Your task to perform on an android device: snooze an email in the gmail app Image 0: 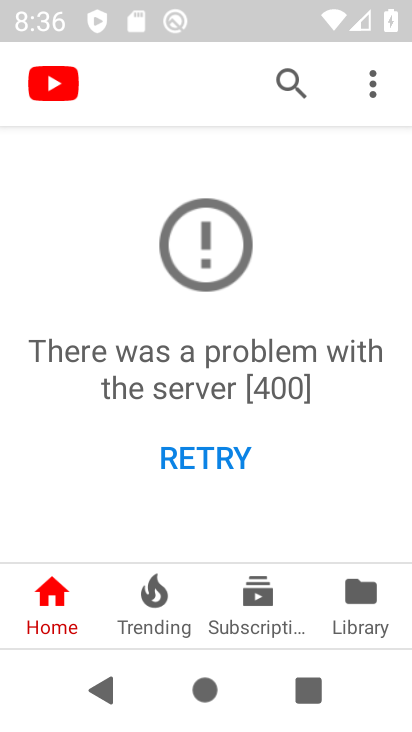
Step 0: press home button
Your task to perform on an android device: snooze an email in the gmail app Image 1: 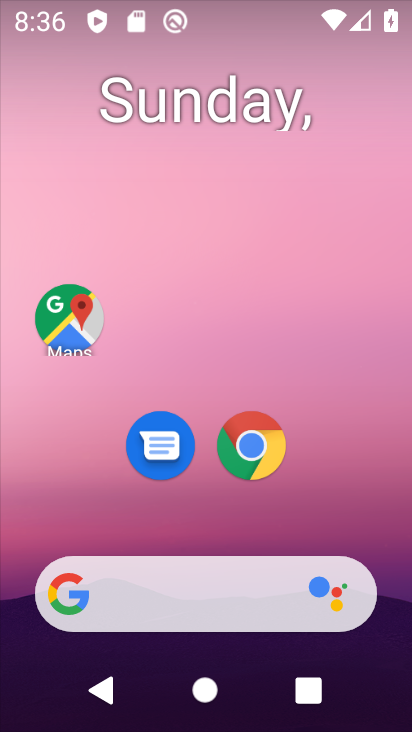
Step 1: drag from (352, 359) to (317, 108)
Your task to perform on an android device: snooze an email in the gmail app Image 2: 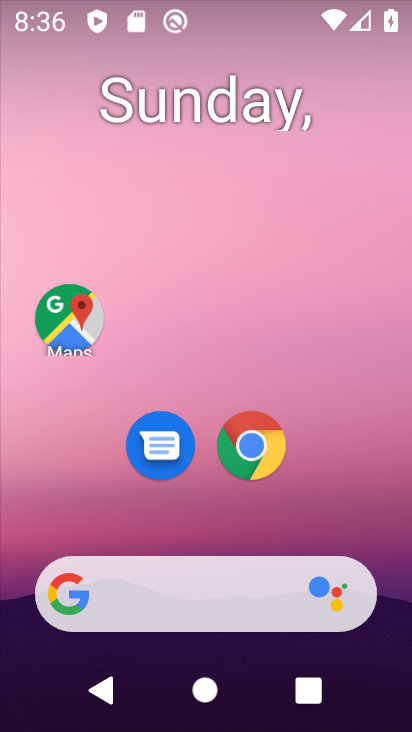
Step 2: drag from (347, 537) to (303, 171)
Your task to perform on an android device: snooze an email in the gmail app Image 3: 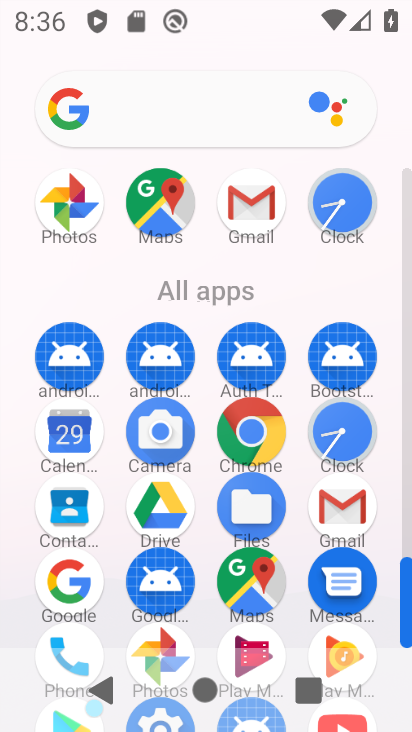
Step 3: click (244, 223)
Your task to perform on an android device: snooze an email in the gmail app Image 4: 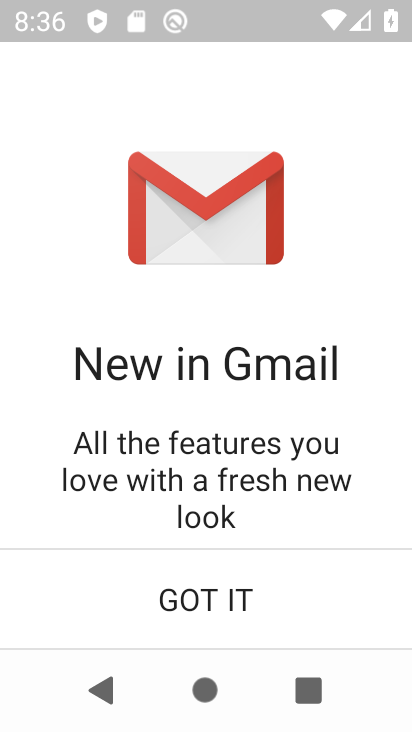
Step 4: click (268, 628)
Your task to perform on an android device: snooze an email in the gmail app Image 5: 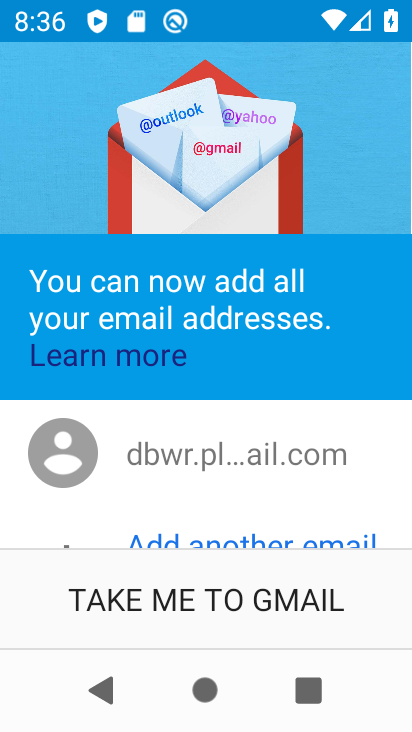
Step 5: click (275, 629)
Your task to perform on an android device: snooze an email in the gmail app Image 6: 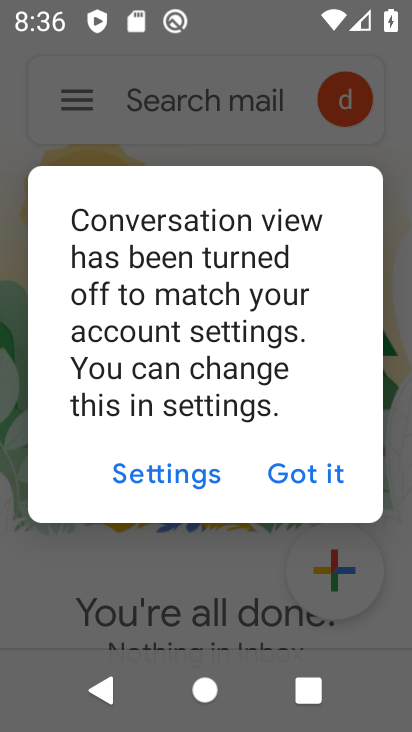
Step 6: click (306, 479)
Your task to perform on an android device: snooze an email in the gmail app Image 7: 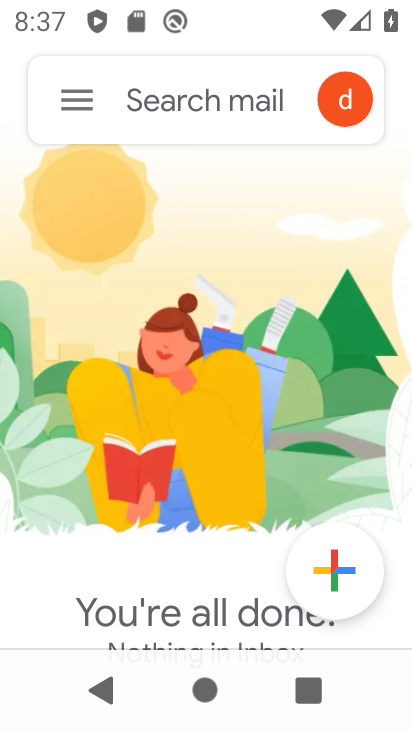
Step 7: click (84, 105)
Your task to perform on an android device: snooze an email in the gmail app Image 8: 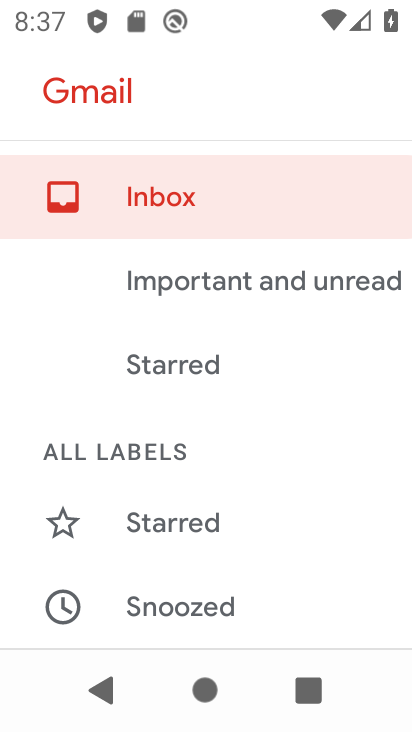
Step 8: drag from (210, 397) to (237, 81)
Your task to perform on an android device: snooze an email in the gmail app Image 9: 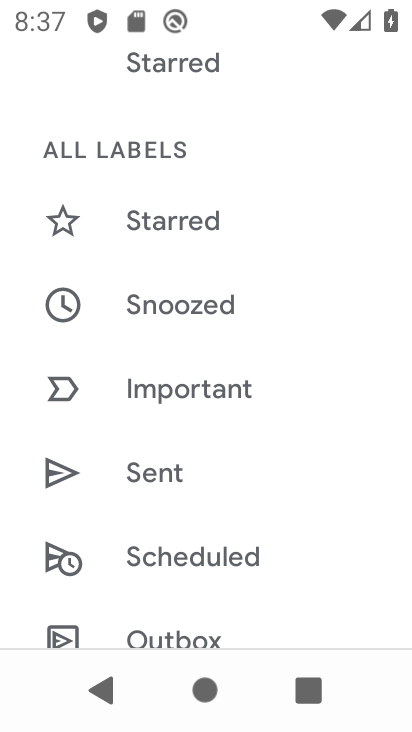
Step 9: click (183, 293)
Your task to perform on an android device: snooze an email in the gmail app Image 10: 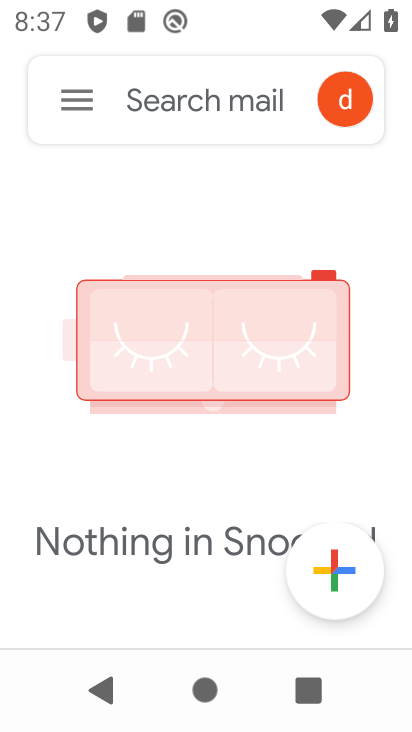
Step 10: click (65, 83)
Your task to perform on an android device: snooze an email in the gmail app Image 11: 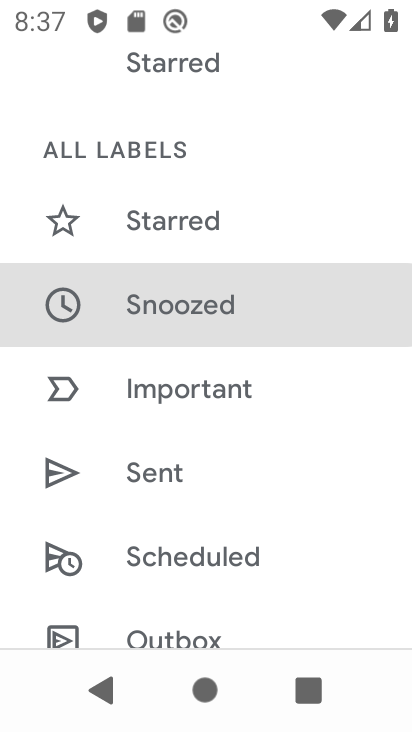
Step 11: click (271, 300)
Your task to perform on an android device: snooze an email in the gmail app Image 12: 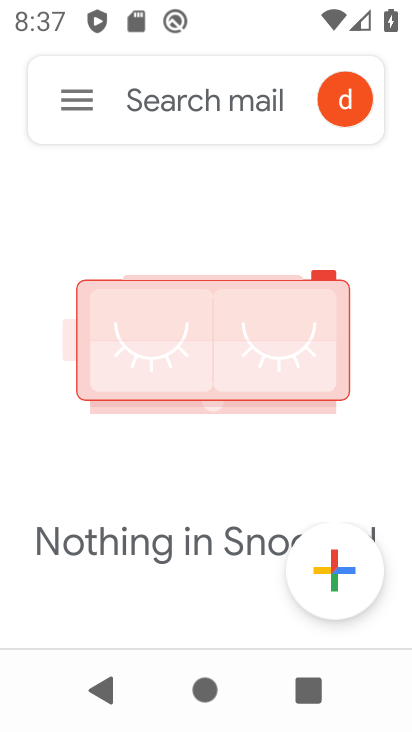
Step 12: task complete